Your task to perform on an android device: Search for "rayovac triple a" on bestbuy.com, select the first entry, add it to the cart, then select checkout. Image 0: 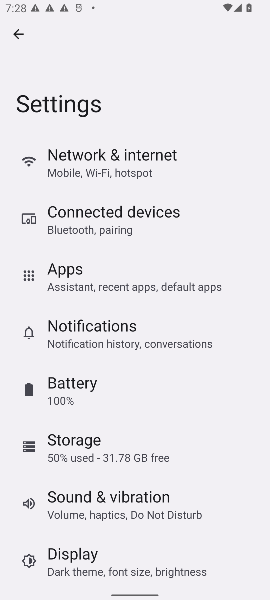
Step 0: press home button
Your task to perform on an android device: Search for "rayovac triple a" on bestbuy.com, select the first entry, add it to the cart, then select checkout. Image 1: 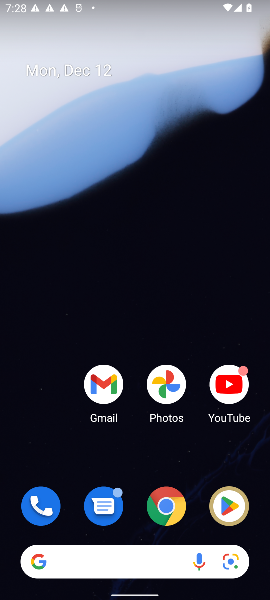
Step 1: click (161, 485)
Your task to perform on an android device: Search for "rayovac triple a" on bestbuy.com, select the first entry, add it to the cart, then select checkout. Image 2: 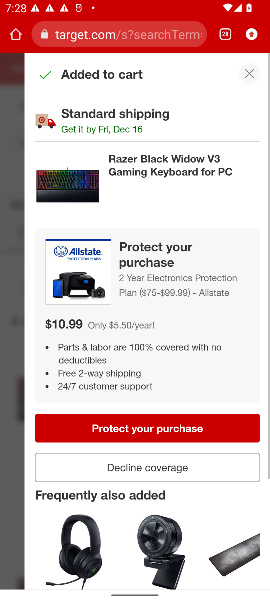
Step 2: click (245, 74)
Your task to perform on an android device: Search for "rayovac triple a" on bestbuy.com, select the first entry, add it to the cart, then select checkout. Image 3: 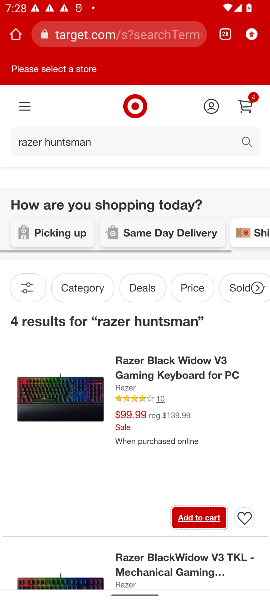
Step 3: click (104, 38)
Your task to perform on an android device: Search for "rayovac triple a" on bestbuy.com, select the first entry, add it to the cart, then select checkout. Image 4: 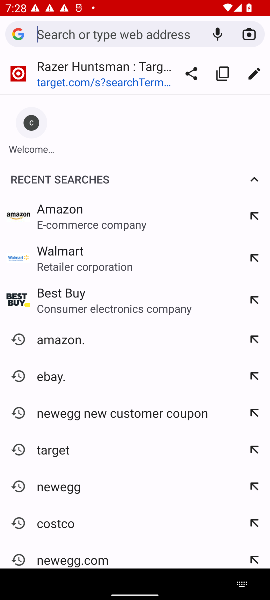
Step 4: type "bestbuy"
Your task to perform on an android device: Search for "rayovac triple a" on bestbuy.com, select the first entry, add it to the cart, then select checkout. Image 5: 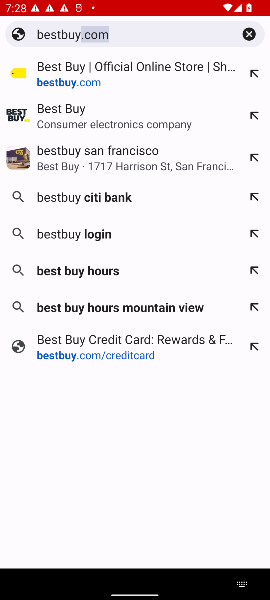
Step 5: click (90, 76)
Your task to perform on an android device: Search for "rayovac triple a" on bestbuy.com, select the first entry, add it to the cart, then select checkout. Image 6: 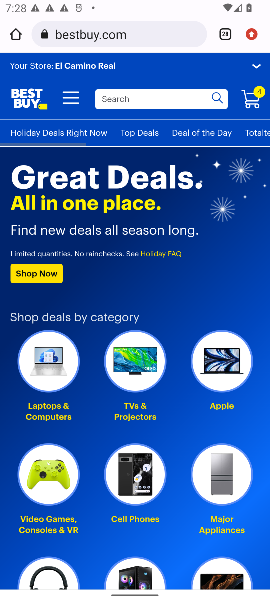
Step 6: click (108, 90)
Your task to perform on an android device: Search for "rayovac triple a" on bestbuy.com, select the first entry, add it to the cart, then select checkout. Image 7: 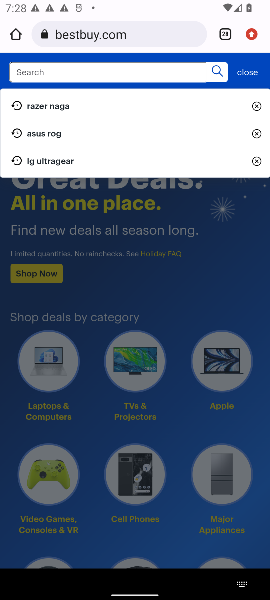
Step 7: type "rayovac triple a"
Your task to perform on an android device: Search for "rayovac triple a" on bestbuy.com, select the first entry, add it to the cart, then select checkout. Image 8: 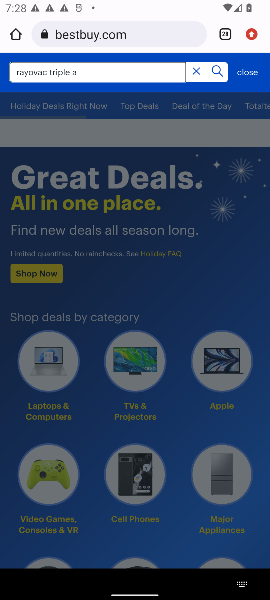
Step 8: click (217, 78)
Your task to perform on an android device: Search for "rayovac triple a" on bestbuy.com, select the first entry, add it to the cart, then select checkout. Image 9: 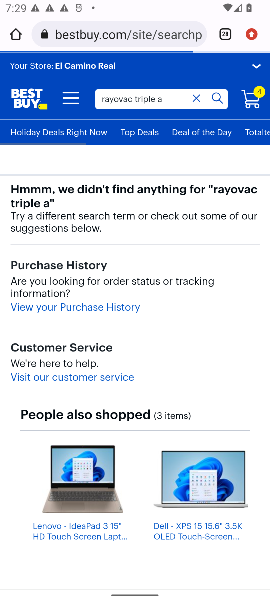
Step 9: drag from (118, 444) to (140, 230)
Your task to perform on an android device: Search for "rayovac triple a" on bestbuy.com, select the first entry, add it to the cart, then select checkout. Image 10: 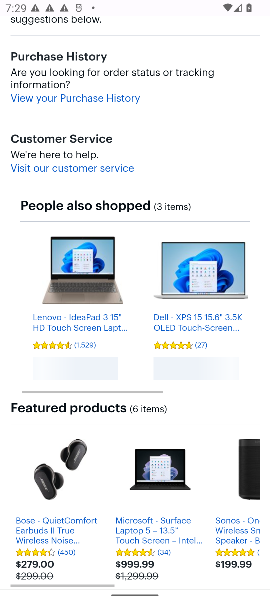
Step 10: click (130, 285)
Your task to perform on an android device: Search for "rayovac triple a" on bestbuy.com, select the first entry, add it to the cart, then select checkout. Image 11: 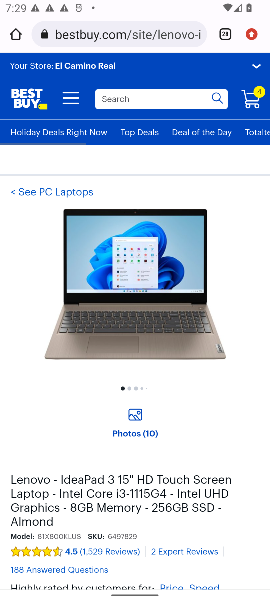
Step 11: task complete